Your task to perform on an android device: turn notification dots on Image 0: 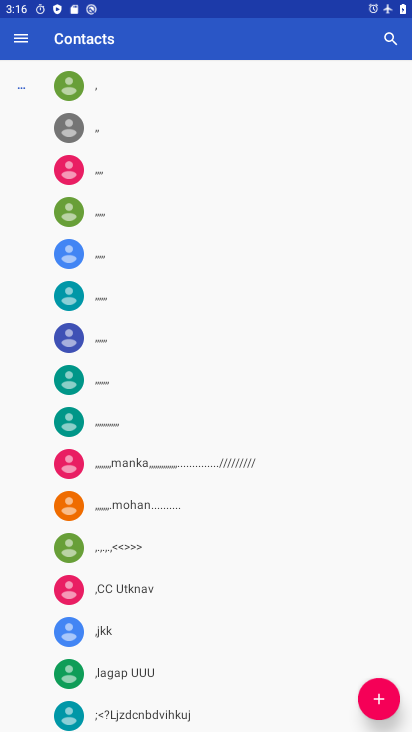
Step 0: press home button
Your task to perform on an android device: turn notification dots on Image 1: 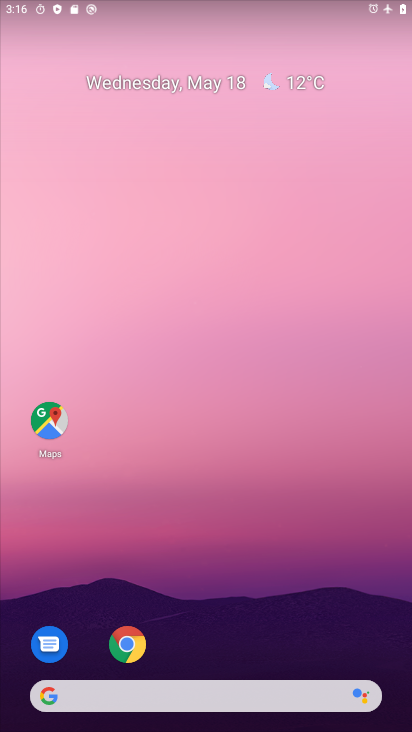
Step 1: drag from (395, 686) to (338, 150)
Your task to perform on an android device: turn notification dots on Image 2: 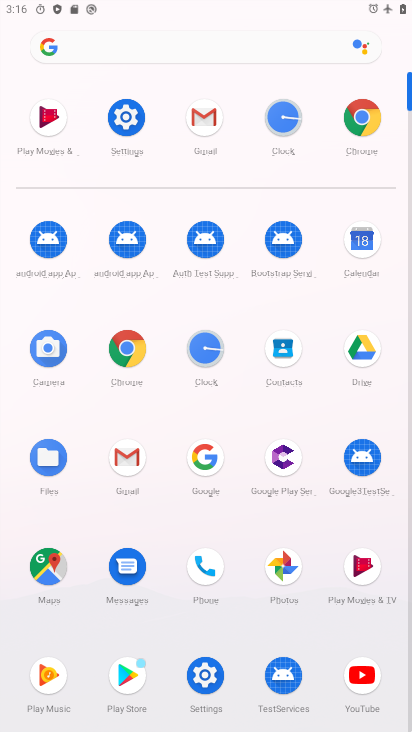
Step 2: click (110, 121)
Your task to perform on an android device: turn notification dots on Image 3: 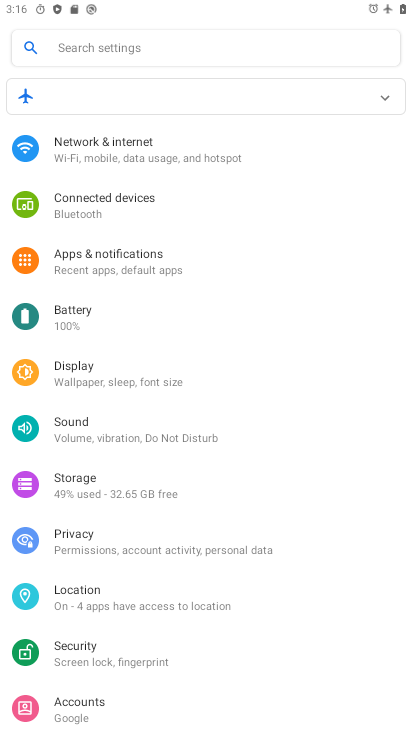
Step 3: click (130, 257)
Your task to perform on an android device: turn notification dots on Image 4: 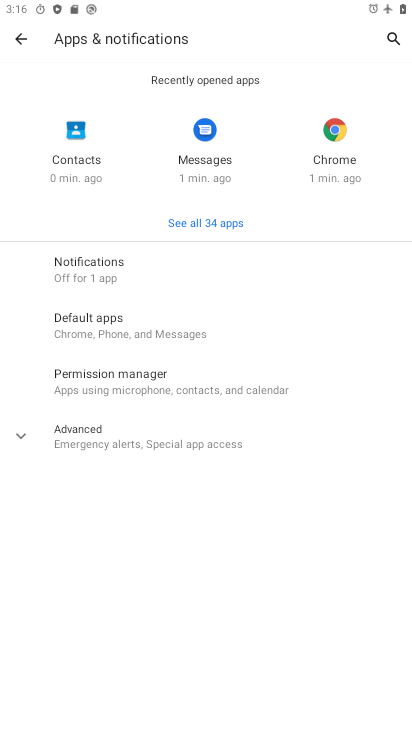
Step 4: click (102, 246)
Your task to perform on an android device: turn notification dots on Image 5: 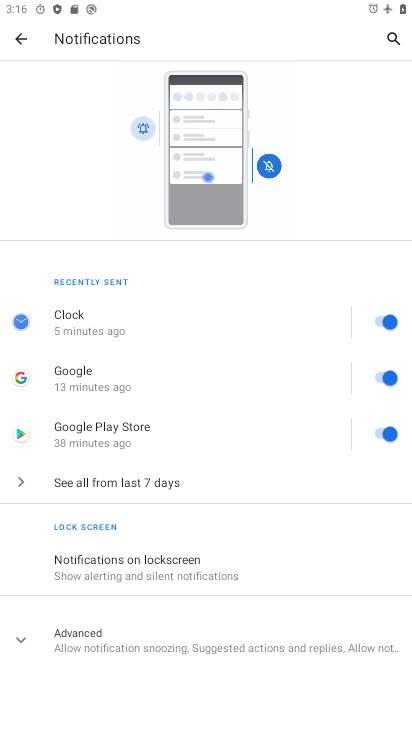
Step 5: drag from (263, 616) to (264, 283)
Your task to perform on an android device: turn notification dots on Image 6: 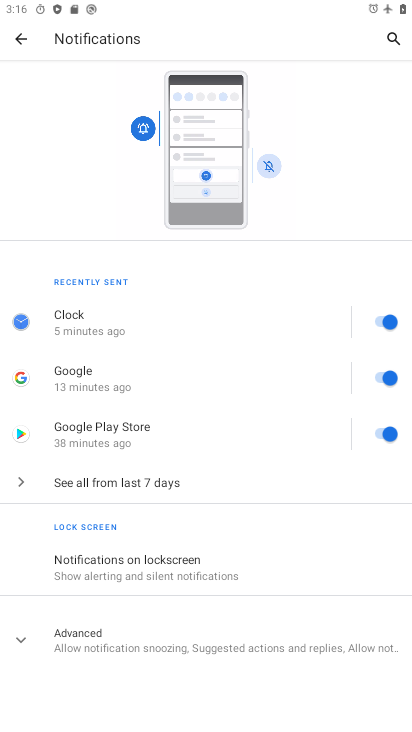
Step 6: drag from (239, 620) to (327, 224)
Your task to perform on an android device: turn notification dots on Image 7: 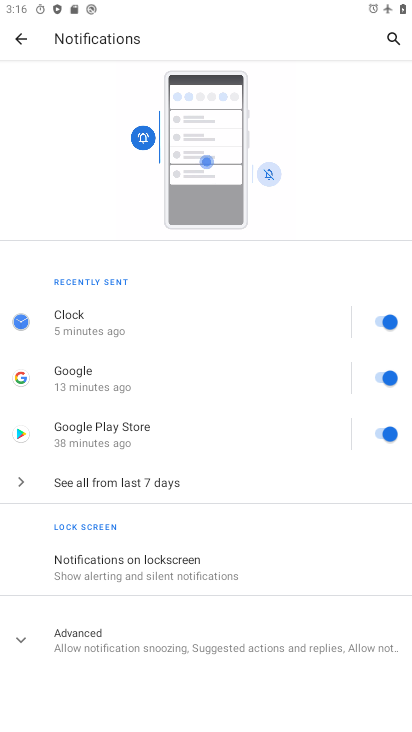
Step 7: drag from (283, 691) to (235, 250)
Your task to perform on an android device: turn notification dots on Image 8: 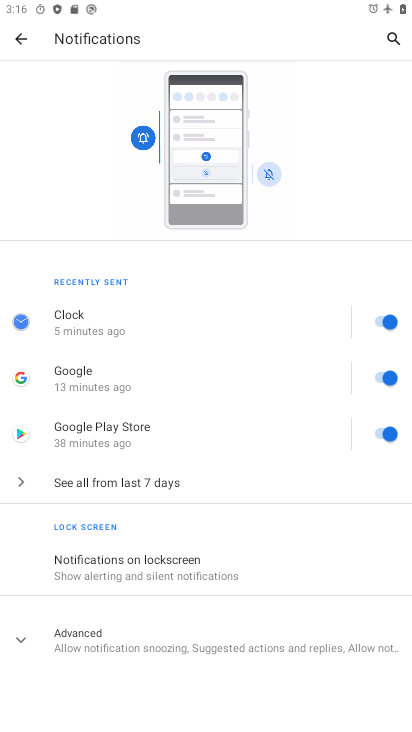
Step 8: click (22, 639)
Your task to perform on an android device: turn notification dots on Image 9: 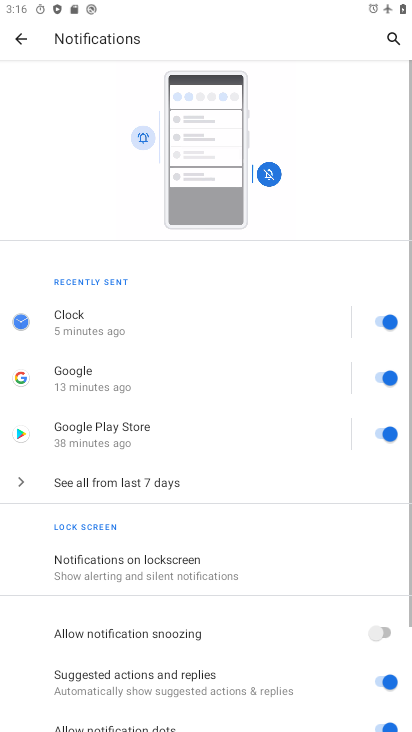
Step 9: task complete